Your task to perform on an android device: create a new album in the google photos Image 0: 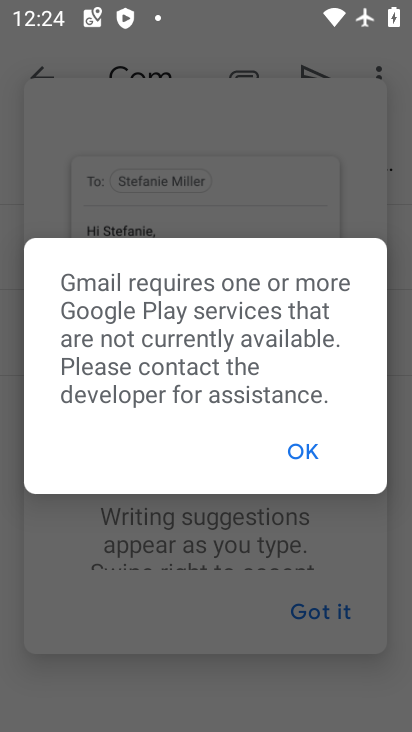
Step 0: press home button
Your task to perform on an android device: create a new album in the google photos Image 1: 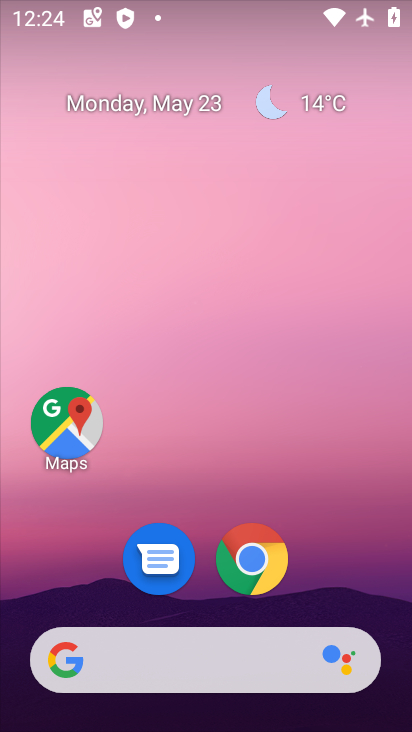
Step 1: drag from (339, 614) to (407, 690)
Your task to perform on an android device: create a new album in the google photos Image 2: 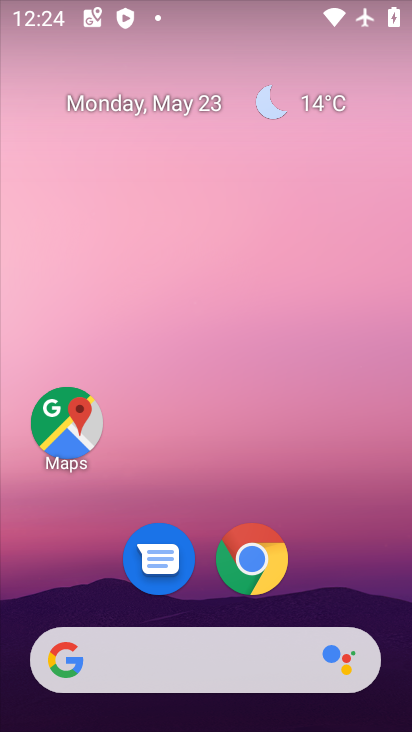
Step 2: drag from (326, 622) to (373, 23)
Your task to perform on an android device: create a new album in the google photos Image 3: 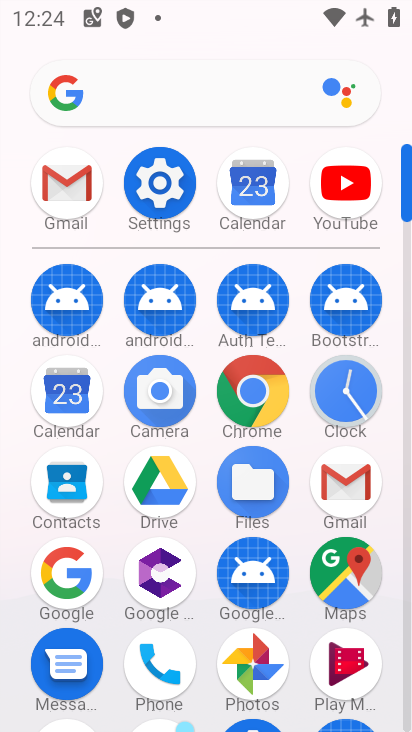
Step 3: click (262, 658)
Your task to perform on an android device: create a new album in the google photos Image 4: 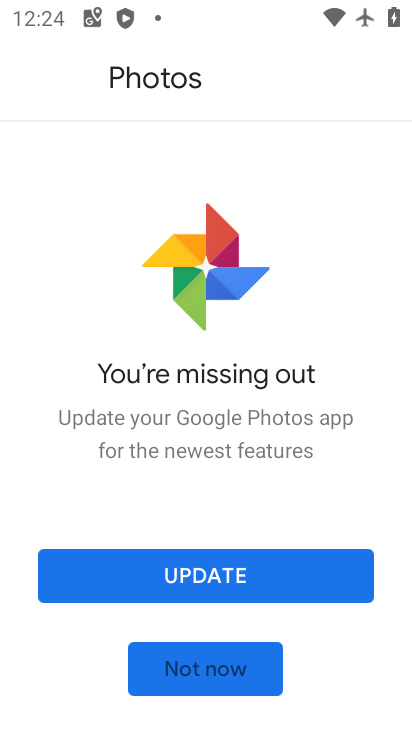
Step 4: click (211, 668)
Your task to perform on an android device: create a new album in the google photos Image 5: 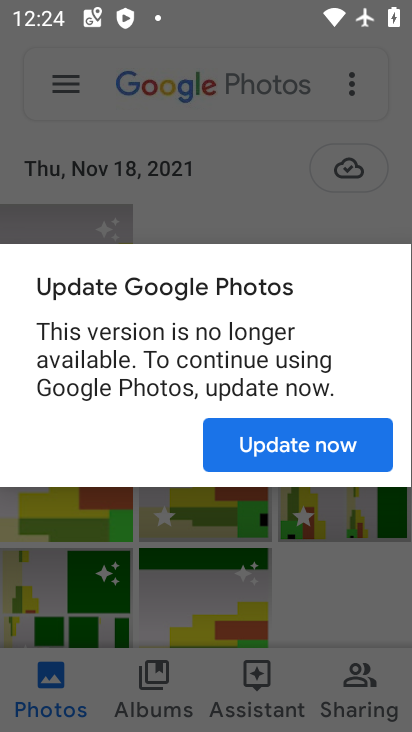
Step 5: click (291, 453)
Your task to perform on an android device: create a new album in the google photos Image 6: 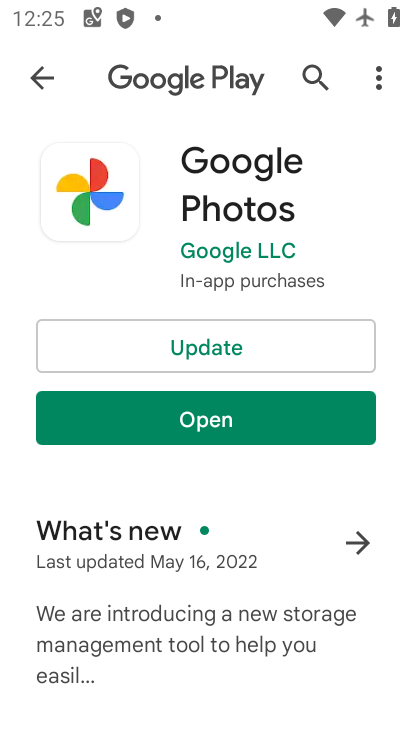
Step 6: click (223, 430)
Your task to perform on an android device: create a new album in the google photos Image 7: 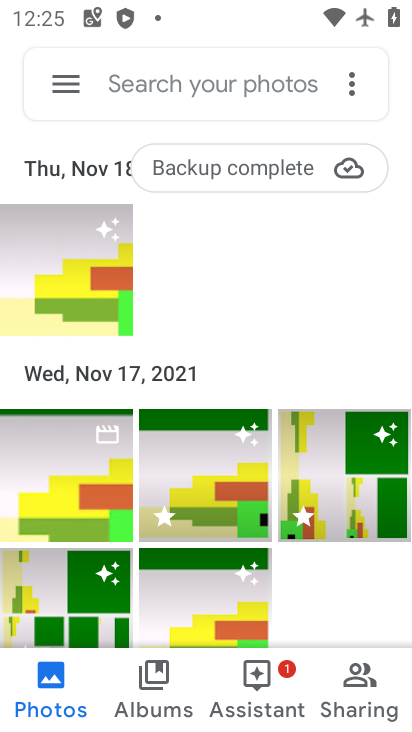
Step 7: click (200, 500)
Your task to perform on an android device: create a new album in the google photos Image 8: 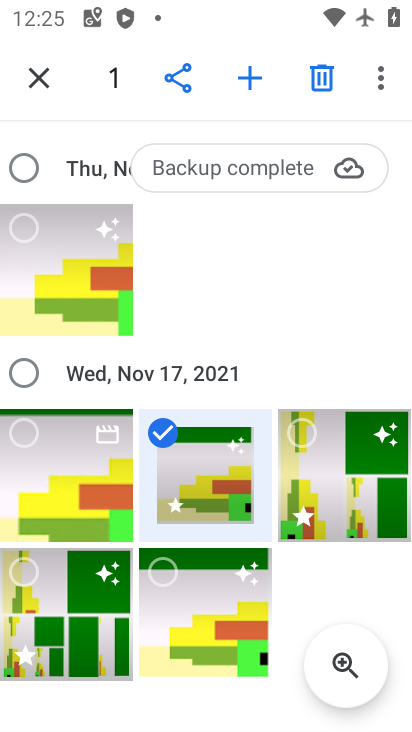
Step 8: click (323, 473)
Your task to perform on an android device: create a new album in the google photos Image 9: 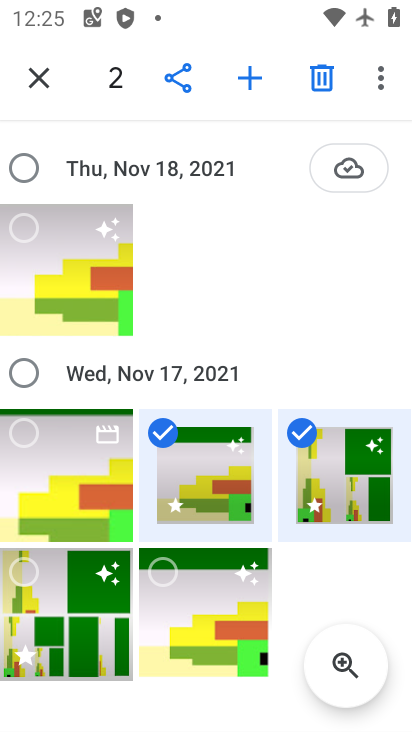
Step 9: click (249, 79)
Your task to perform on an android device: create a new album in the google photos Image 10: 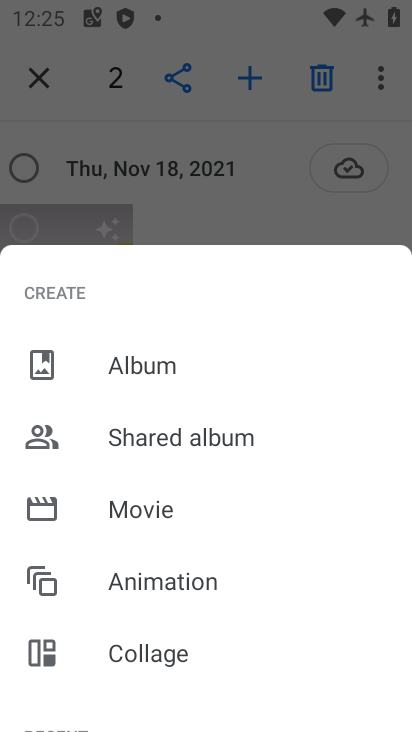
Step 10: click (118, 367)
Your task to perform on an android device: create a new album in the google photos Image 11: 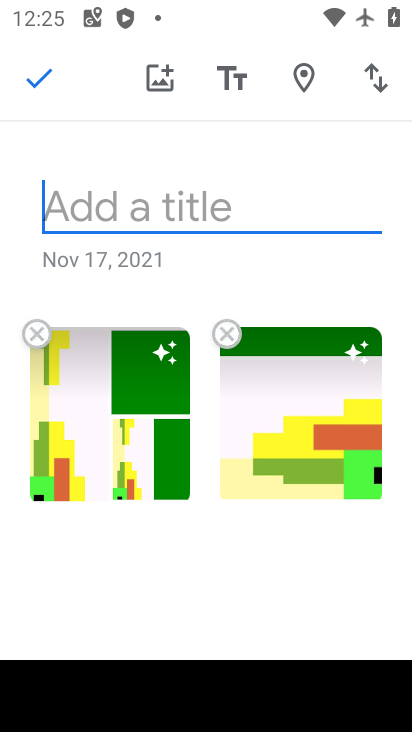
Step 11: type "new 2"
Your task to perform on an android device: create a new album in the google photos Image 12: 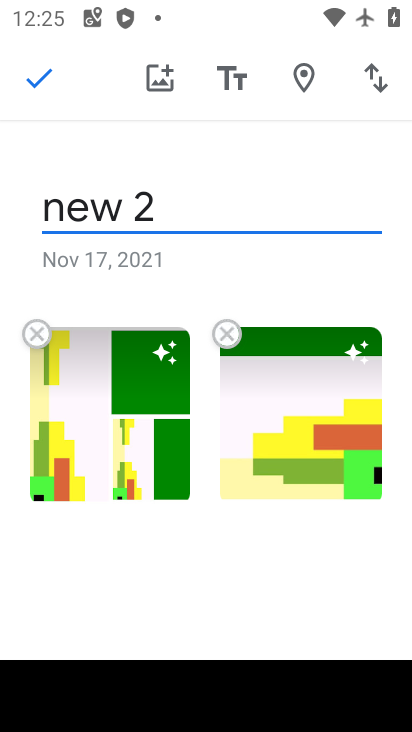
Step 12: click (34, 86)
Your task to perform on an android device: create a new album in the google photos Image 13: 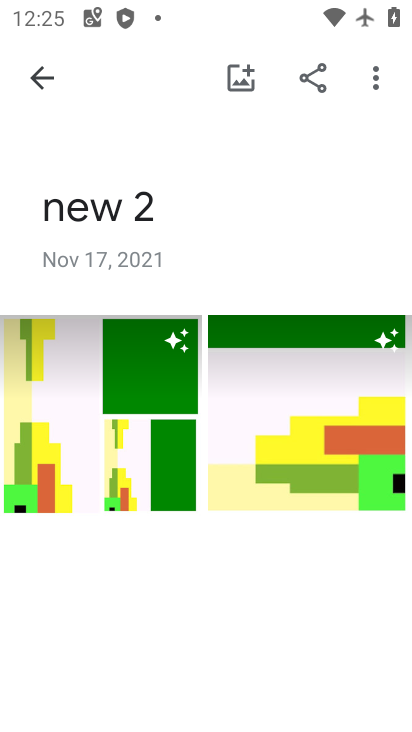
Step 13: task complete